Your task to perform on an android device: check data usage Image 0: 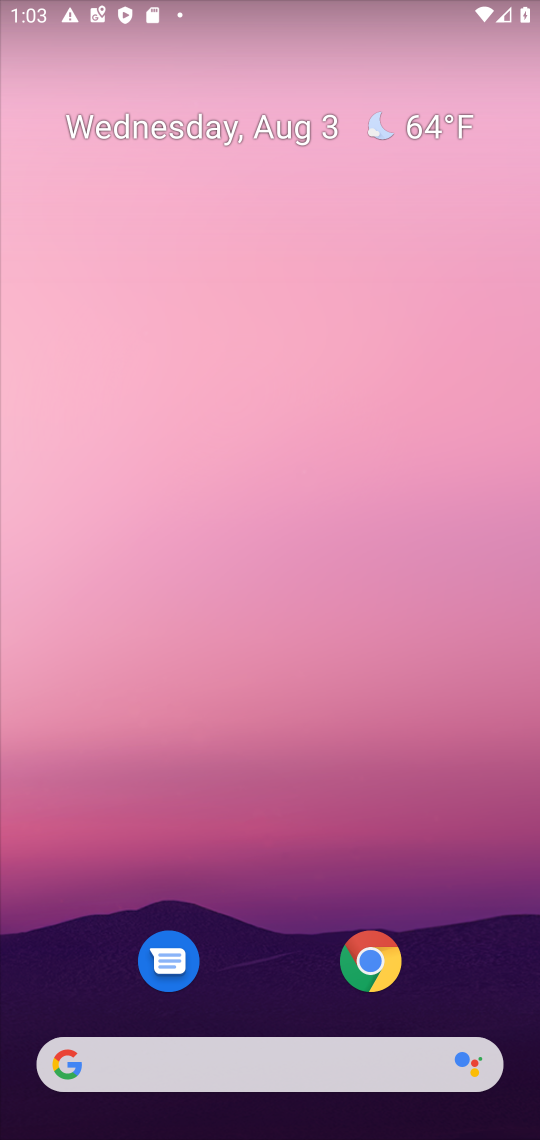
Step 0: drag from (284, 967) to (294, 1)
Your task to perform on an android device: check data usage Image 1: 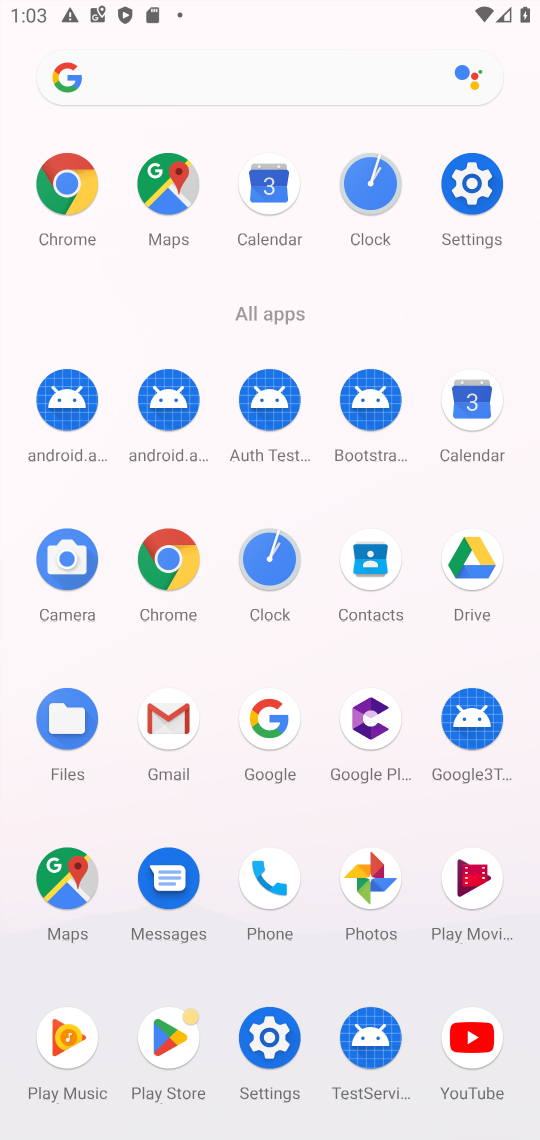
Step 1: click (467, 193)
Your task to perform on an android device: check data usage Image 2: 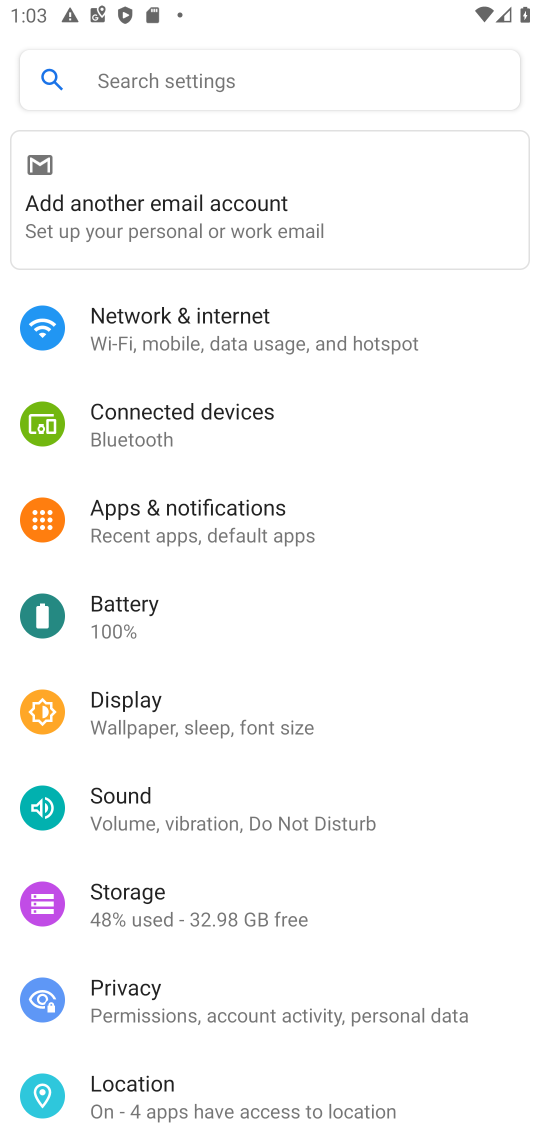
Step 2: click (153, 336)
Your task to perform on an android device: check data usage Image 3: 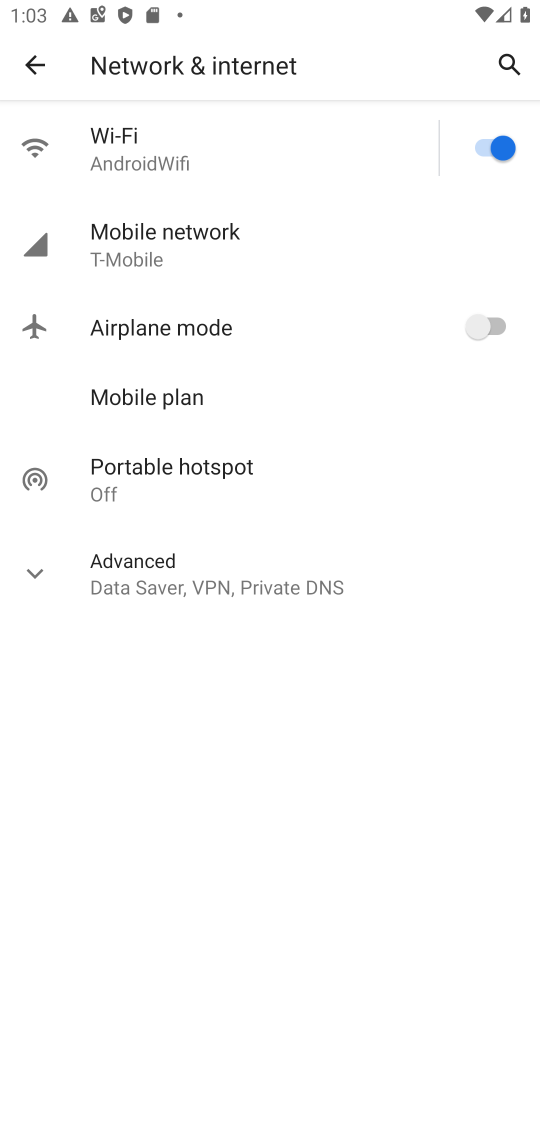
Step 3: click (123, 243)
Your task to perform on an android device: check data usage Image 4: 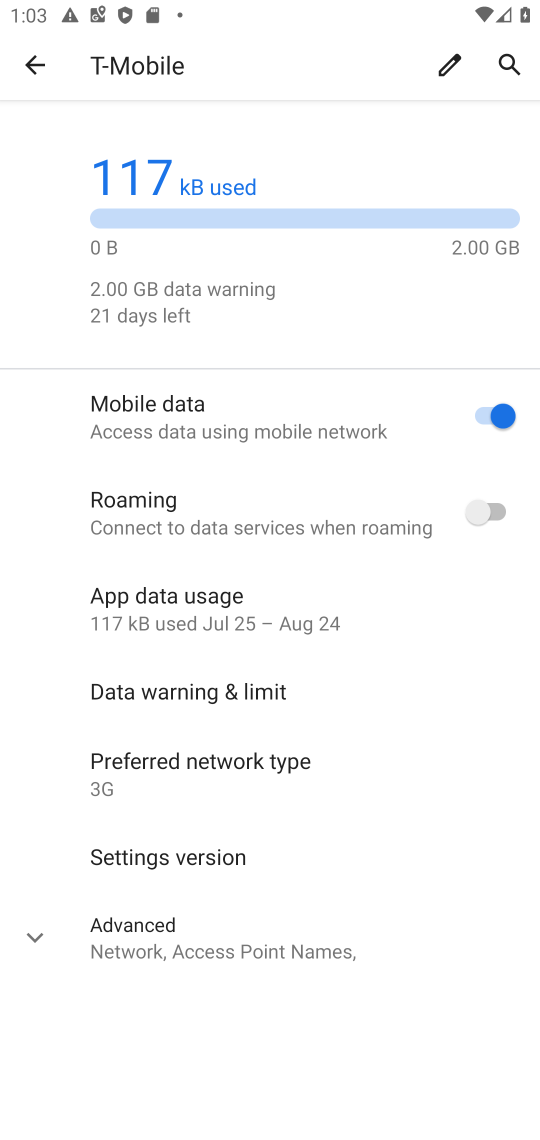
Step 4: click (150, 603)
Your task to perform on an android device: check data usage Image 5: 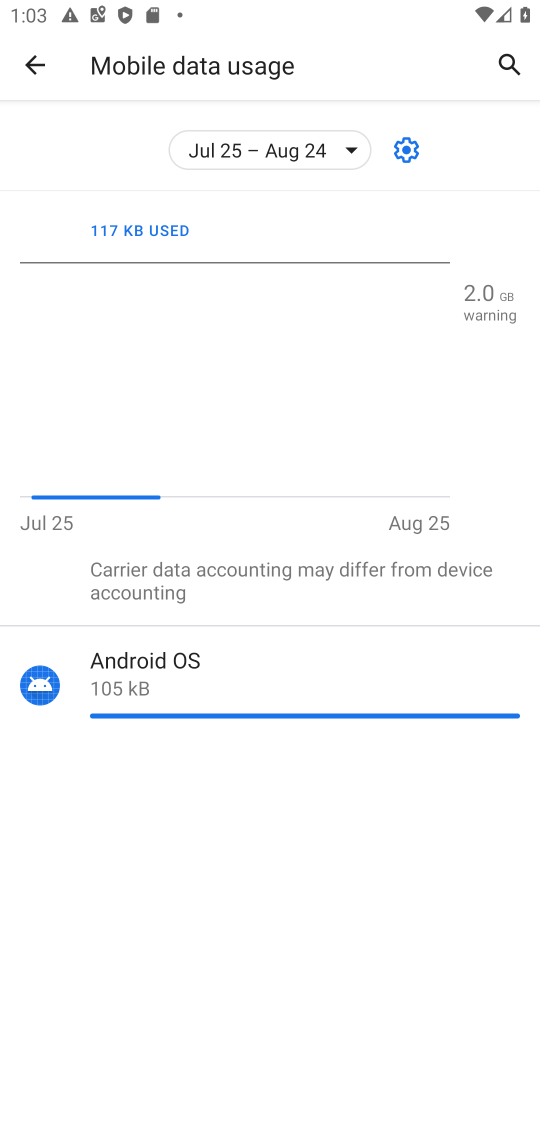
Step 5: task complete